Your task to perform on an android device: Open the stopwatch Image 0: 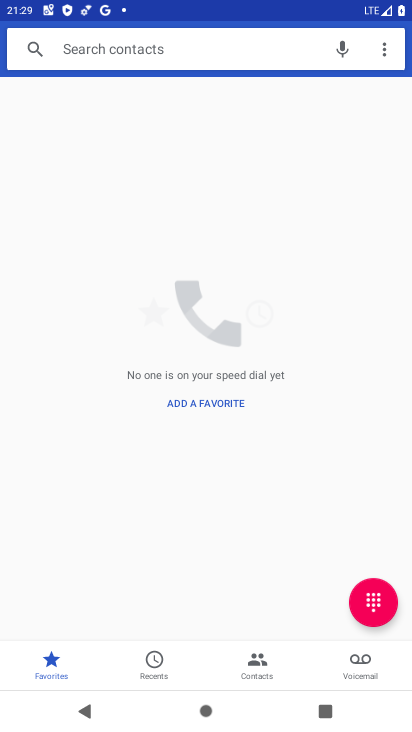
Step 0: press home button
Your task to perform on an android device: Open the stopwatch Image 1: 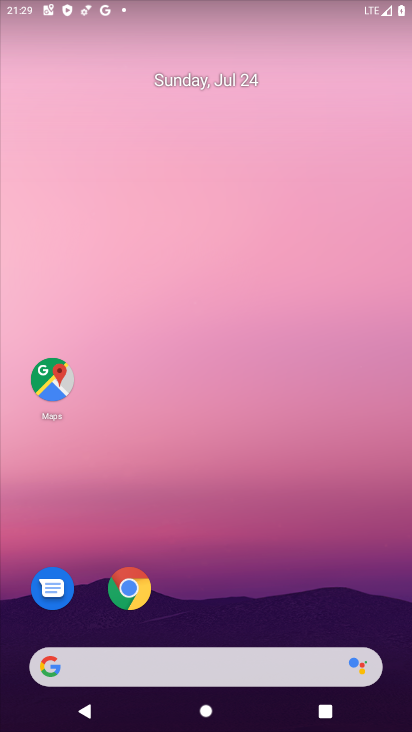
Step 1: drag from (210, 668) to (191, 193)
Your task to perform on an android device: Open the stopwatch Image 2: 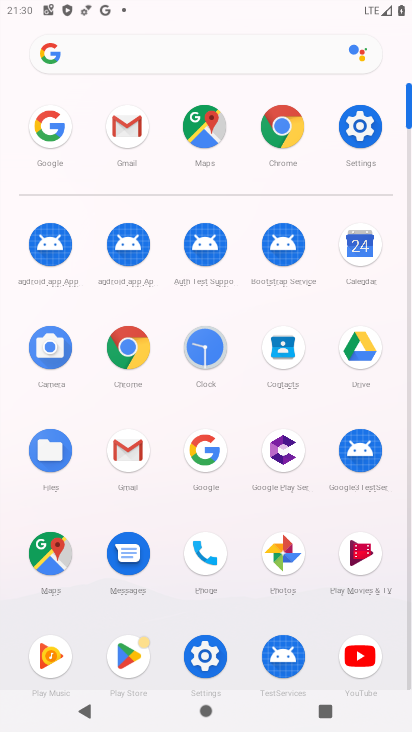
Step 2: click (208, 357)
Your task to perform on an android device: Open the stopwatch Image 3: 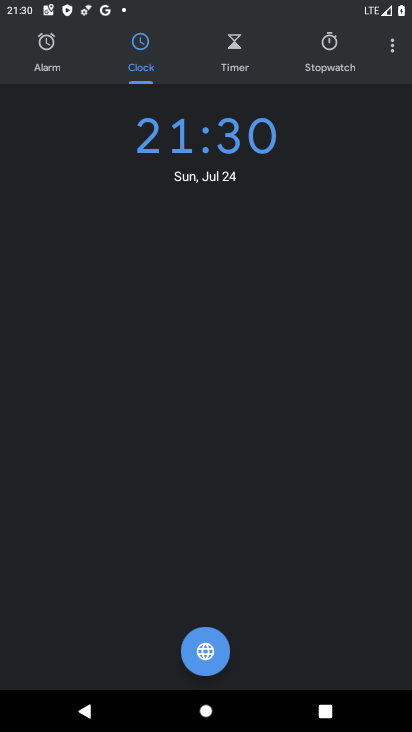
Step 3: click (314, 58)
Your task to perform on an android device: Open the stopwatch Image 4: 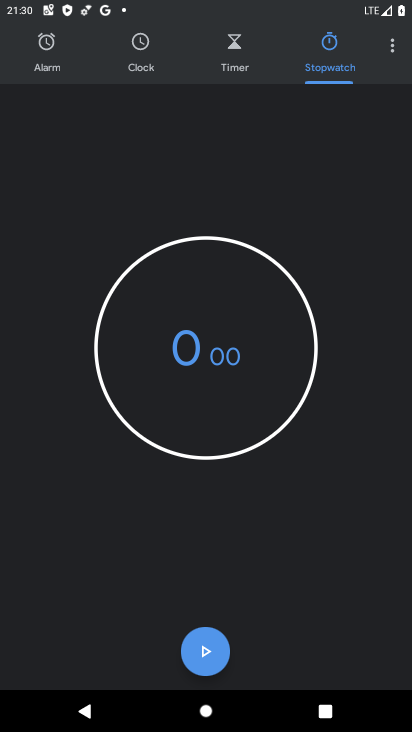
Step 4: task complete